Your task to perform on an android device: read, delete, or share a saved page in the chrome app Image 0: 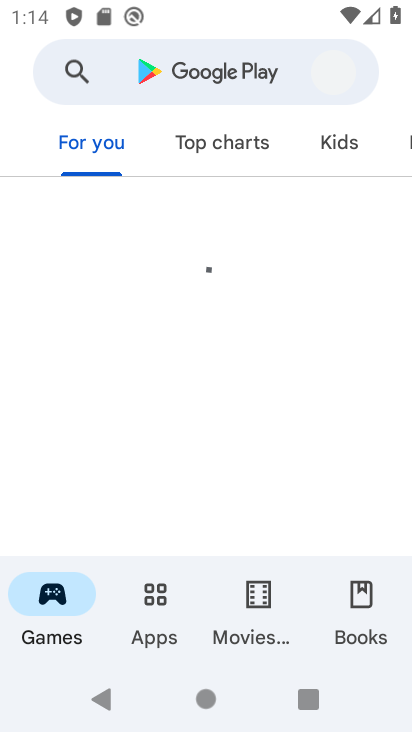
Step 0: press home button
Your task to perform on an android device: read, delete, or share a saved page in the chrome app Image 1: 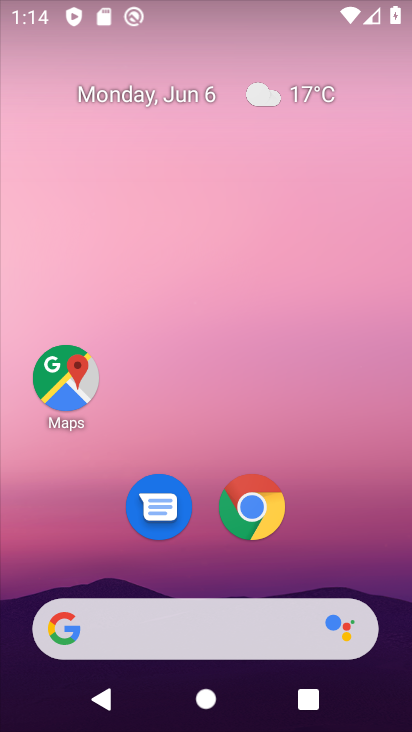
Step 1: drag from (206, 678) to (237, 254)
Your task to perform on an android device: read, delete, or share a saved page in the chrome app Image 2: 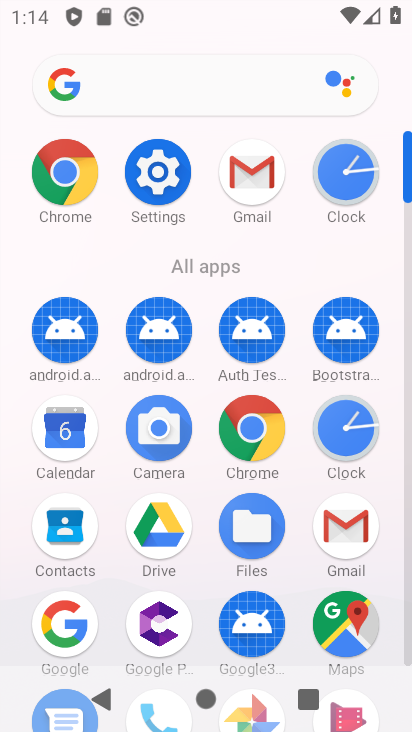
Step 2: click (51, 156)
Your task to perform on an android device: read, delete, or share a saved page in the chrome app Image 3: 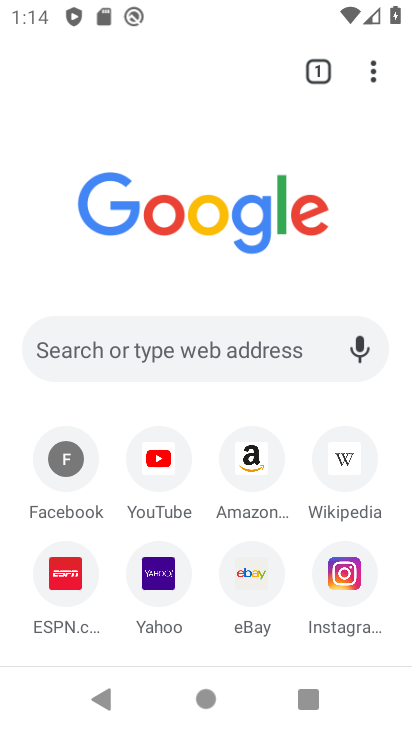
Step 3: click (369, 69)
Your task to perform on an android device: read, delete, or share a saved page in the chrome app Image 4: 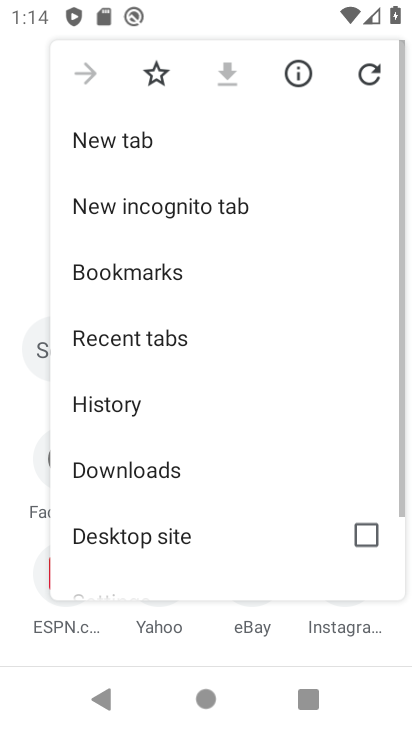
Step 4: drag from (145, 494) to (187, 352)
Your task to perform on an android device: read, delete, or share a saved page in the chrome app Image 5: 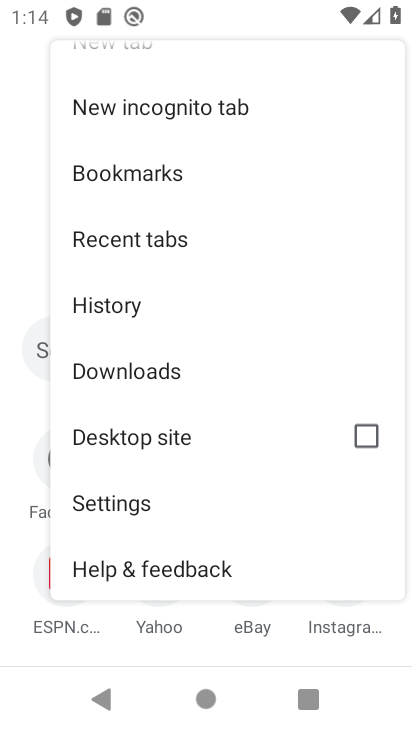
Step 5: click (116, 489)
Your task to perform on an android device: read, delete, or share a saved page in the chrome app Image 6: 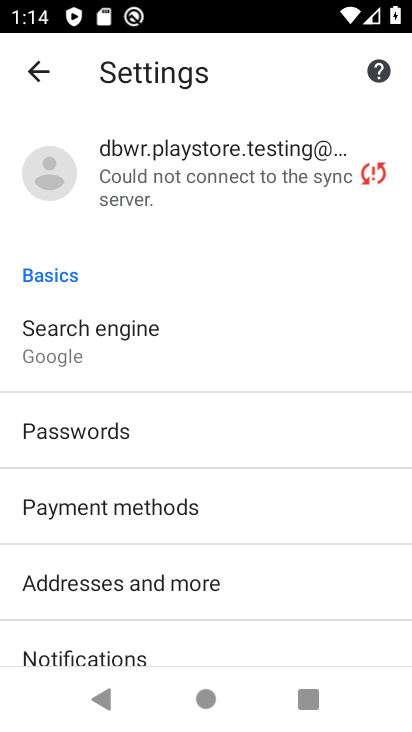
Step 6: drag from (103, 559) to (175, 303)
Your task to perform on an android device: read, delete, or share a saved page in the chrome app Image 7: 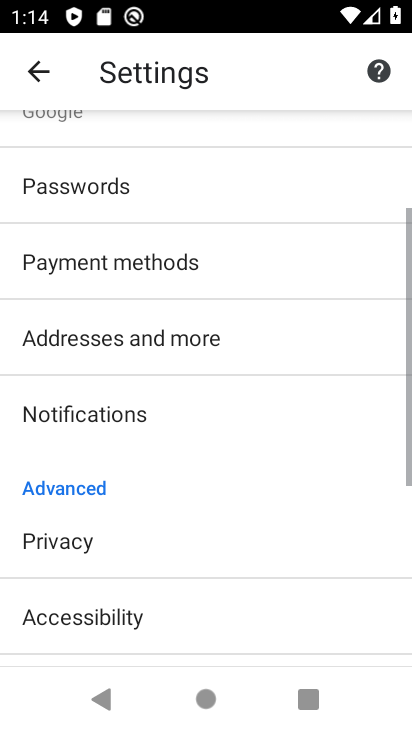
Step 7: drag from (131, 558) to (156, 399)
Your task to perform on an android device: read, delete, or share a saved page in the chrome app Image 8: 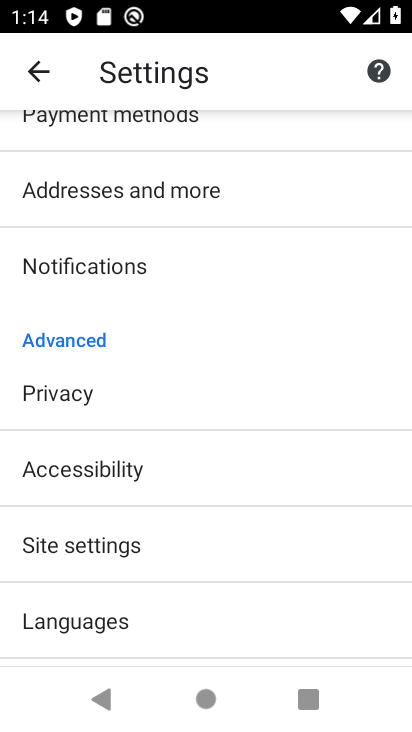
Step 8: click (80, 383)
Your task to perform on an android device: read, delete, or share a saved page in the chrome app Image 9: 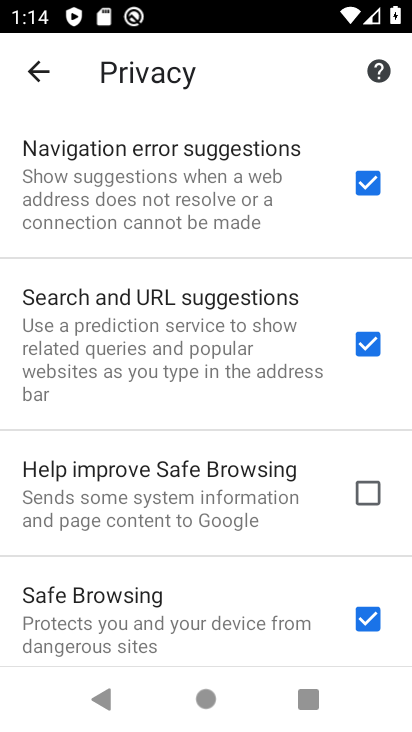
Step 9: drag from (166, 592) to (218, 277)
Your task to perform on an android device: read, delete, or share a saved page in the chrome app Image 10: 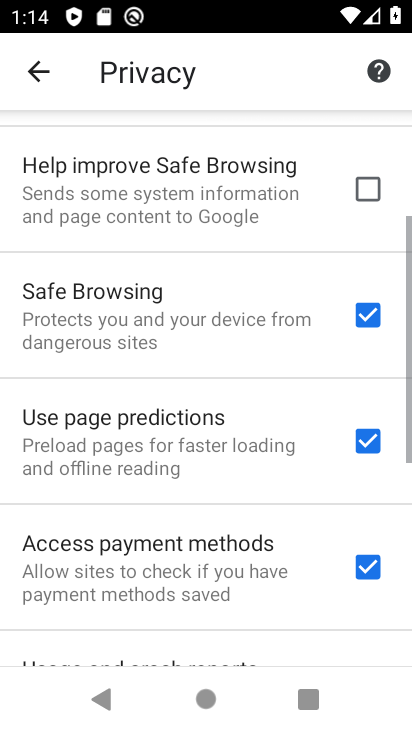
Step 10: drag from (193, 622) to (226, 337)
Your task to perform on an android device: read, delete, or share a saved page in the chrome app Image 11: 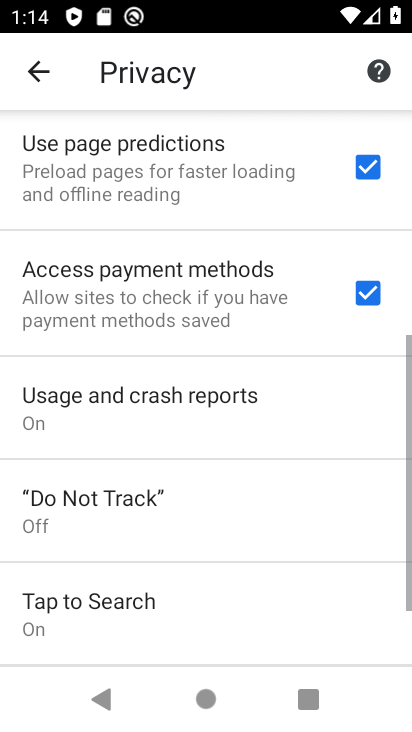
Step 11: drag from (159, 573) to (149, 455)
Your task to perform on an android device: read, delete, or share a saved page in the chrome app Image 12: 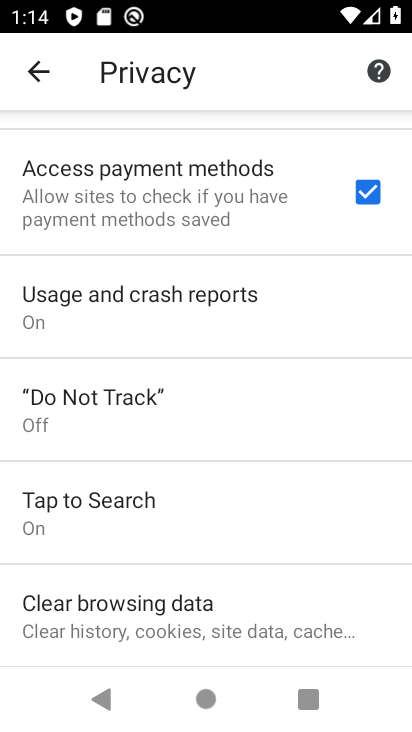
Step 12: click (78, 626)
Your task to perform on an android device: read, delete, or share a saved page in the chrome app Image 13: 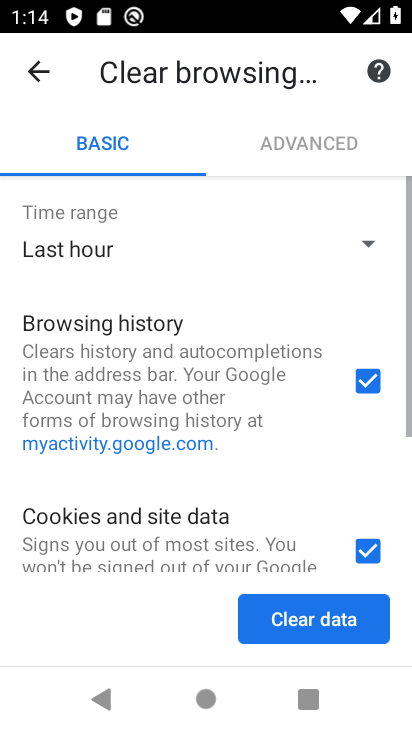
Step 13: click (341, 607)
Your task to perform on an android device: read, delete, or share a saved page in the chrome app Image 14: 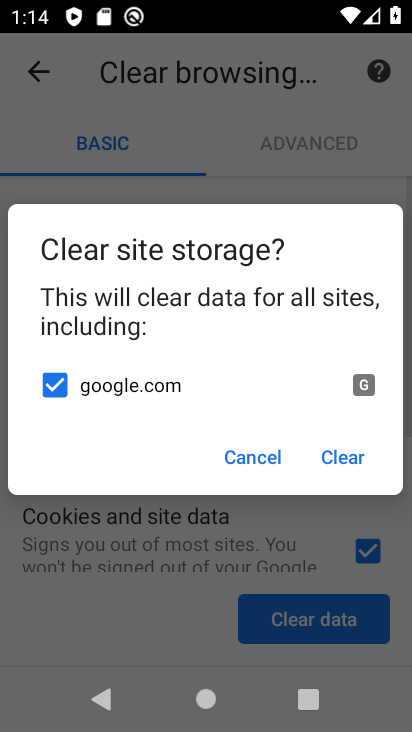
Step 14: task complete